Your task to perform on an android device: Set the phone to "Do not disturb". Image 0: 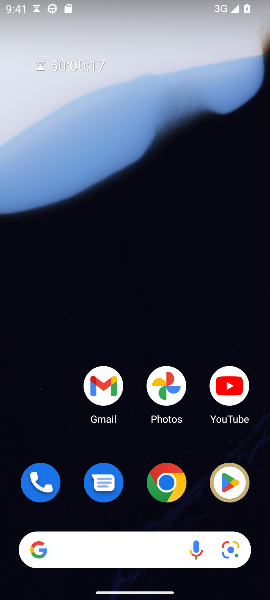
Step 0: drag from (169, 496) to (239, 0)
Your task to perform on an android device: Set the phone to "Do not disturb". Image 1: 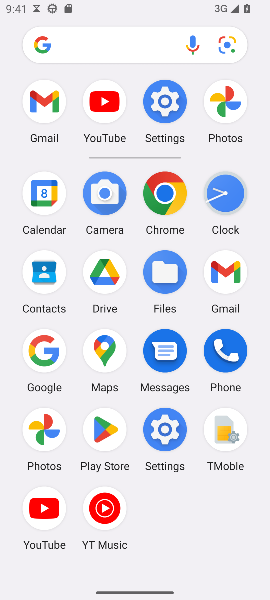
Step 1: click (158, 96)
Your task to perform on an android device: Set the phone to "Do not disturb". Image 2: 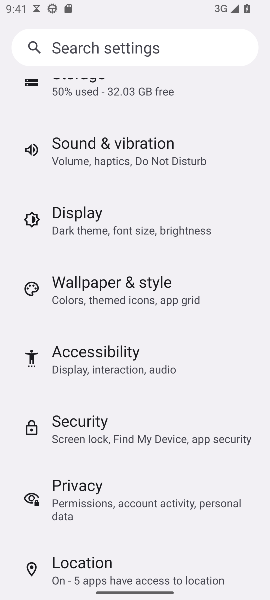
Step 2: click (140, 140)
Your task to perform on an android device: Set the phone to "Do not disturb". Image 3: 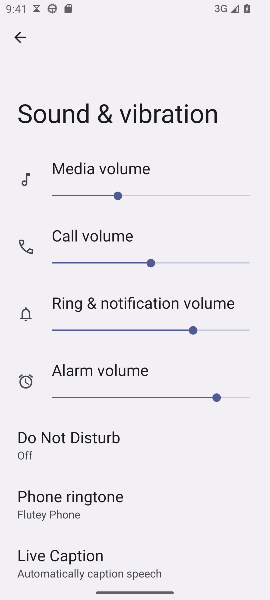
Step 3: click (23, 465)
Your task to perform on an android device: Set the phone to "Do not disturb". Image 4: 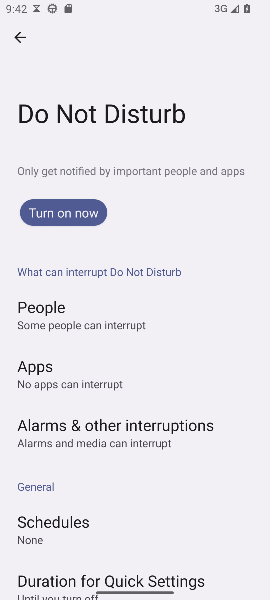
Step 4: click (63, 212)
Your task to perform on an android device: Set the phone to "Do not disturb". Image 5: 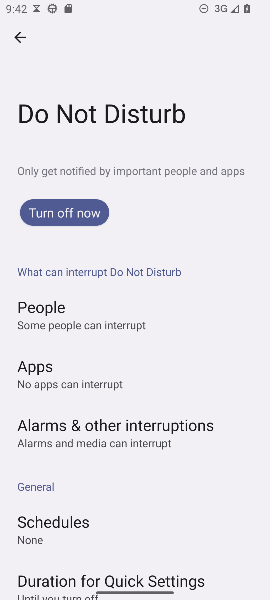
Step 5: click (62, 211)
Your task to perform on an android device: Set the phone to "Do not disturb". Image 6: 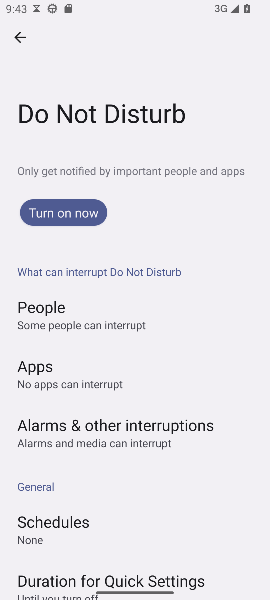
Step 6: click (82, 218)
Your task to perform on an android device: Set the phone to "Do not disturb". Image 7: 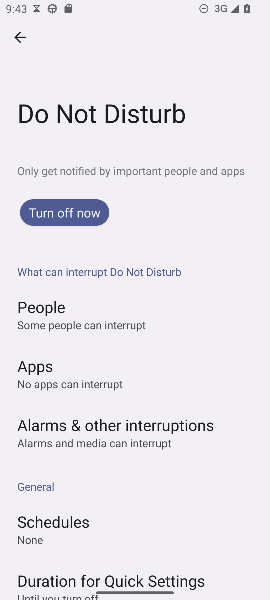
Step 7: click (61, 213)
Your task to perform on an android device: Set the phone to "Do not disturb". Image 8: 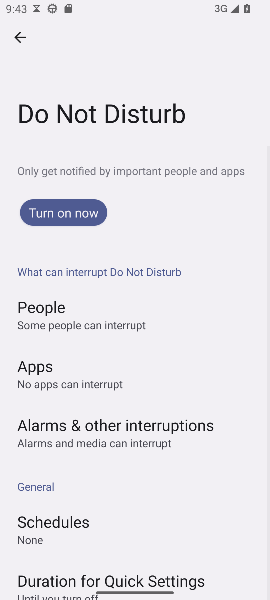
Step 8: task complete